Your task to perform on an android device: turn off notifications settings in the gmail app Image 0: 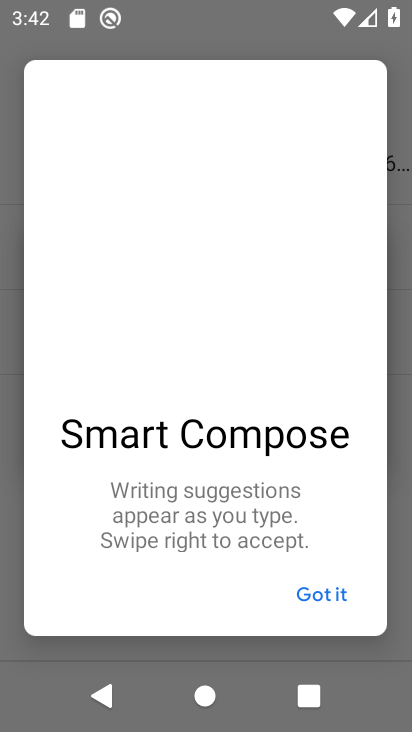
Step 0: click (315, 24)
Your task to perform on an android device: turn off notifications settings in the gmail app Image 1: 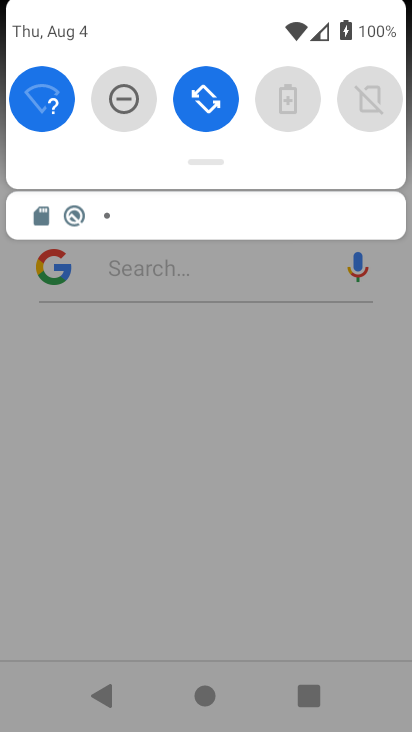
Step 1: press back button
Your task to perform on an android device: turn off notifications settings in the gmail app Image 2: 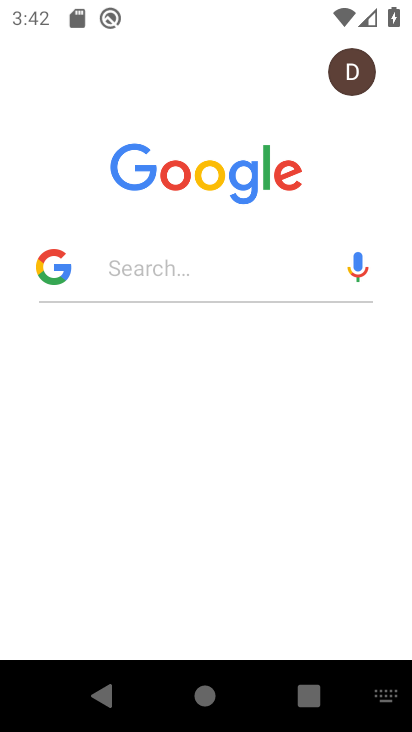
Step 2: press back button
Your task to perform on an android device: turn off notifications settings in the gmail app Image 3: 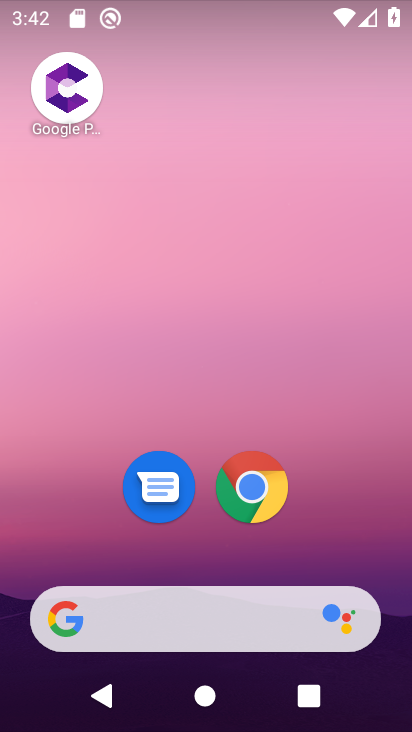
Step 3: press home button
Your task to perform on an android device: turn off notifications settings in the gmail app Image 4: 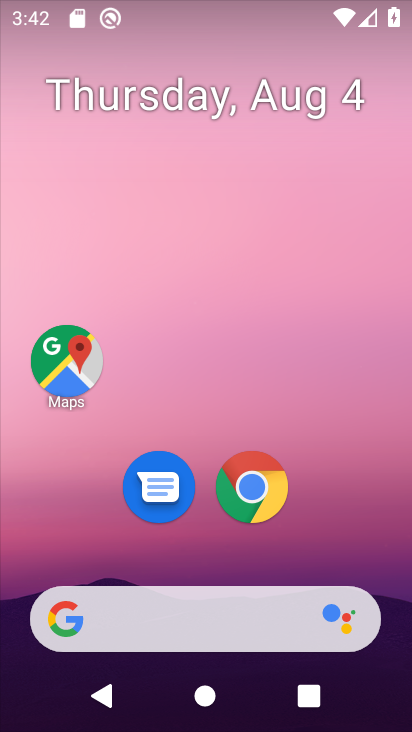
Step 4: drag from (200, 533) to (306, 7)
Your task to perform on an android device: turn off notifications settings in the gmail app Image 5: 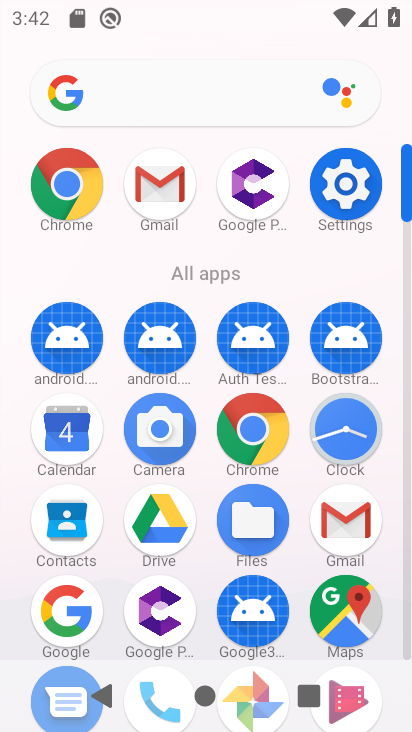
Step 5: click (148, 191)
Your task to perform on an android device: turn off notifications settings in the gmail app Image 6: 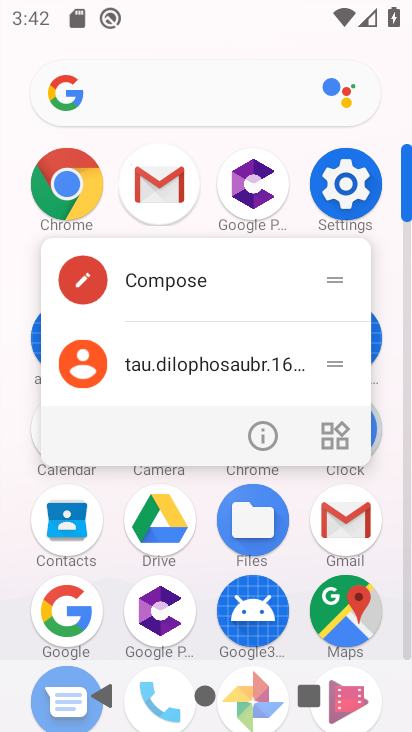
Step 6: click (265, 439)
Your task to perform on an android device: turn off notifications settings in the gmail app Image 7: 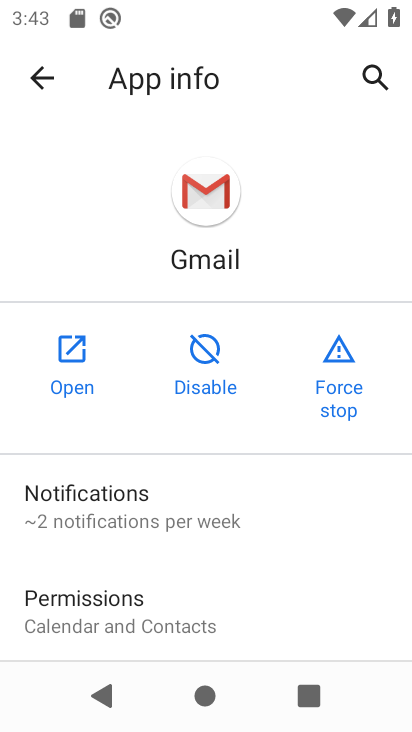
Step 7: click (161, 515)
Your task to perform on an android device: turn off notifications settings in the gmail app Image 8: 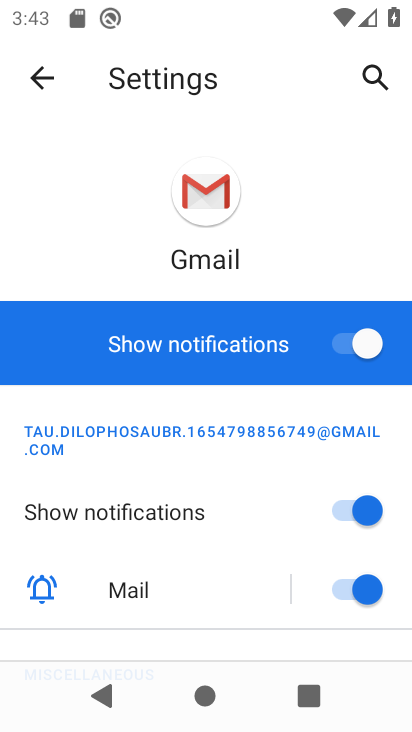
Step 8: click (360, 338)
Your task to perform on an android device: turn off notifications settings in the gmail app Image 9: 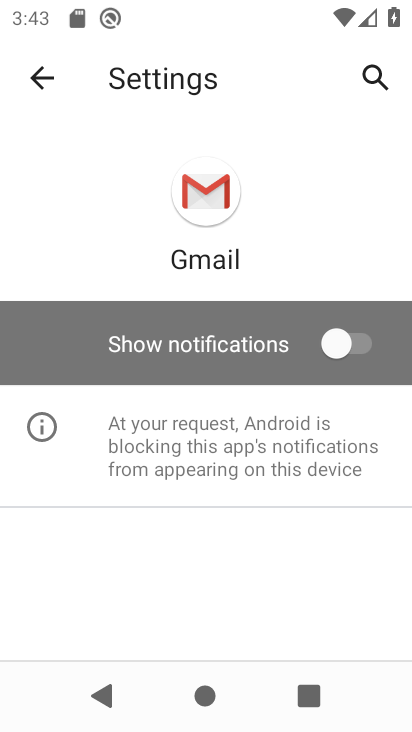
Step 9: task complete